Your task to perform on an android device: turn off translation in the chrome app Image 0: 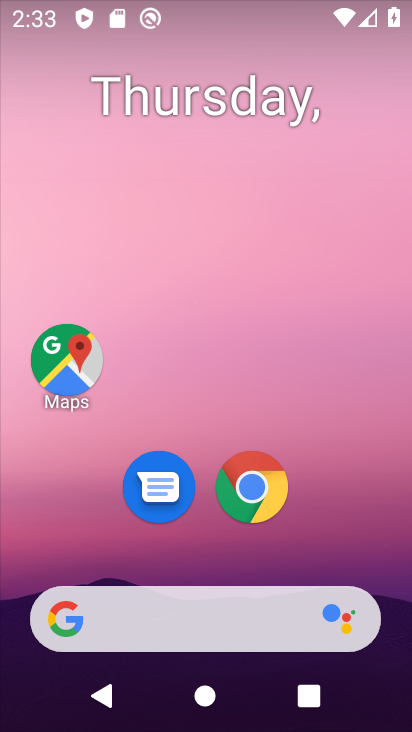
Step 0: click (286, 512)
Your task to perform on an android device: turn off translation in the chrome app Image 1: 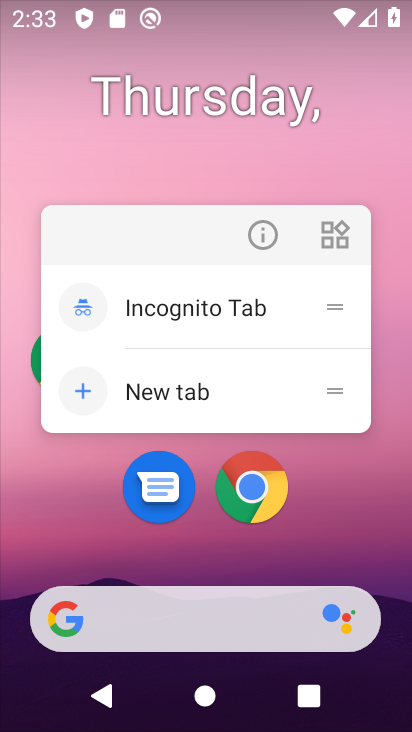
Step 1: click (285, 511)
Your task to perform on an android device: turn off translation in the chrome app Image 2: 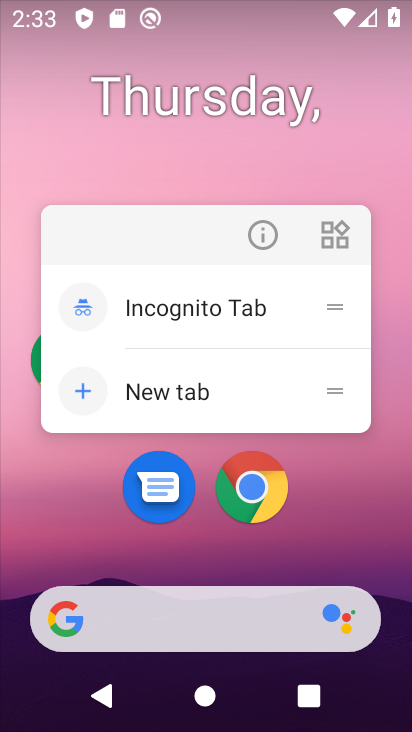
Step 2: click (284, 509)
Your task to perform on an android device: turn off translation in the chrome app Image 3: 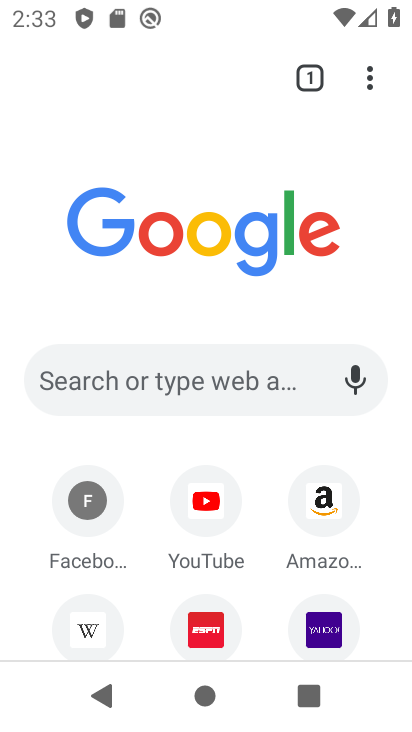
Step 3: drag from (366, 83) to (93, 559)
Your task to perform on an android device: turn off translation in the chrome app Image 4: 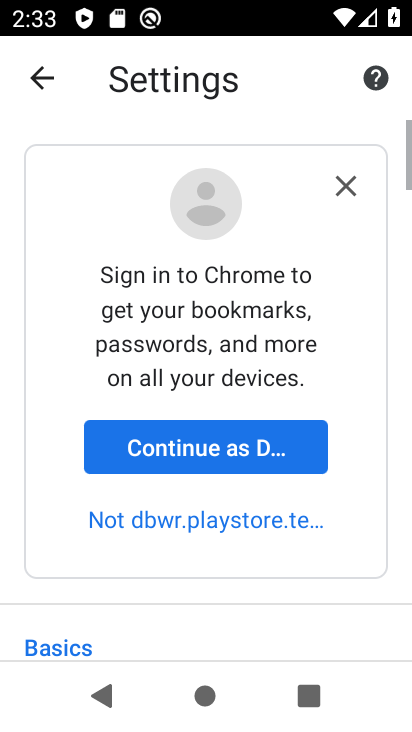
Step 4: drag from (125, 589) to (155, 152)
Your task to perform on an android device: turn off translation in the chrome app Image 5: 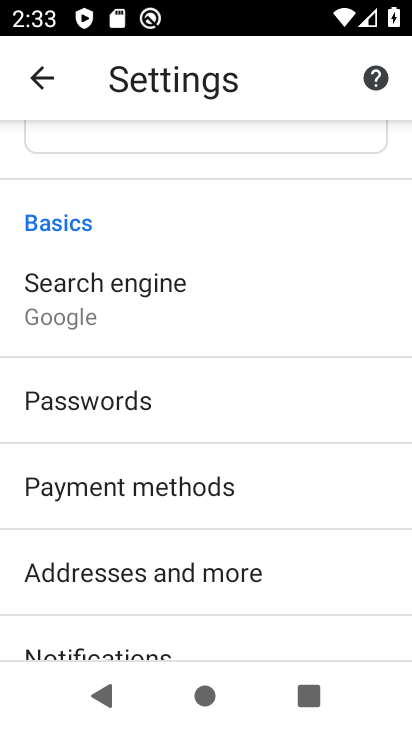
Step 5: drag from (122, 568) to (162, 225)
Your task to perform on an android device: turn off translation in the chrome app Image 6: 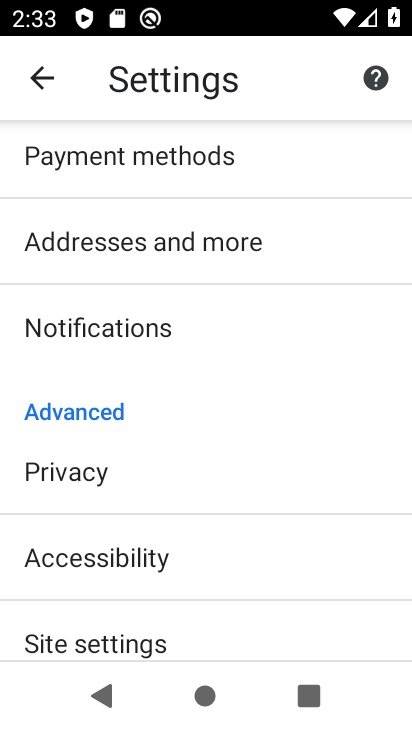
Step 6: drag from (140, 607) to (218, 265)
Your task to perform on an android device: turn off translation in the chrome app Image 7: 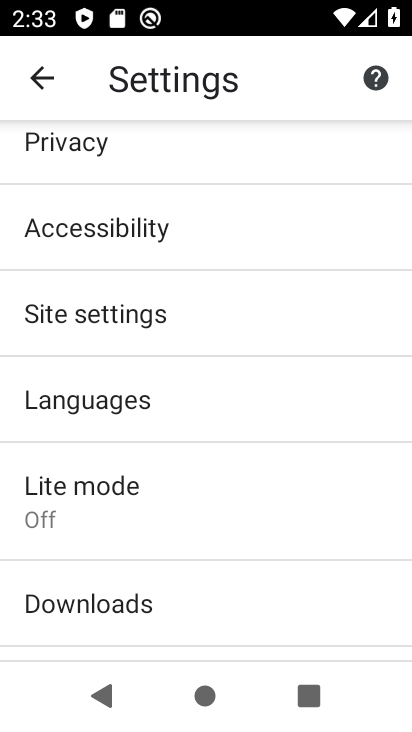
Step 7: click (152, 424)
Your task to perform on an android device: turn off translation in the chrome app Image 8: 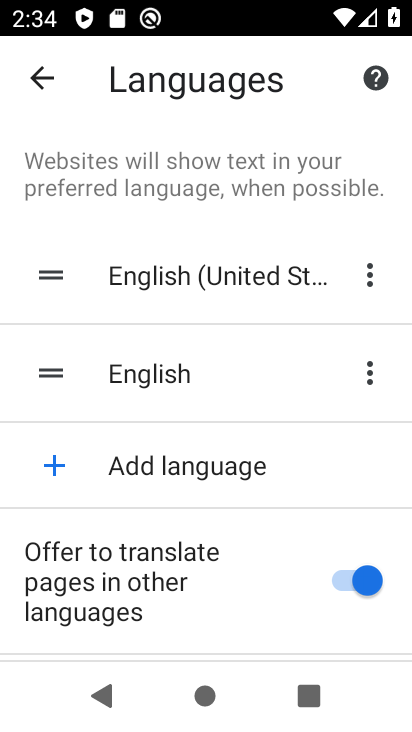
Step 8: click (370, 582)
Your task to perform on an android device: turn off translation in the chrome app Image 9: 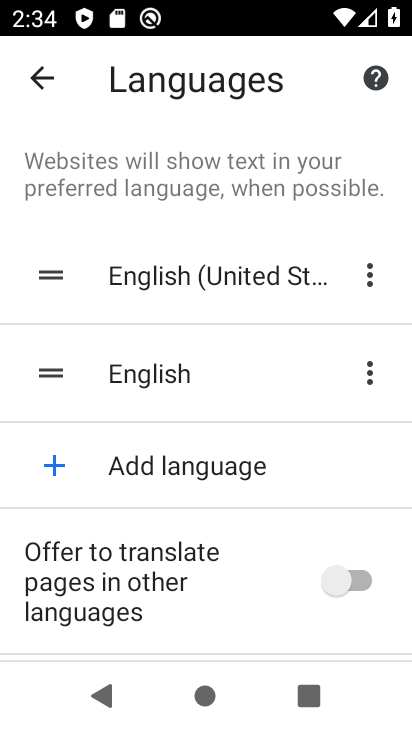
Step 9: task complete